Your task to perform on an android device: Go to eBay Image 0: 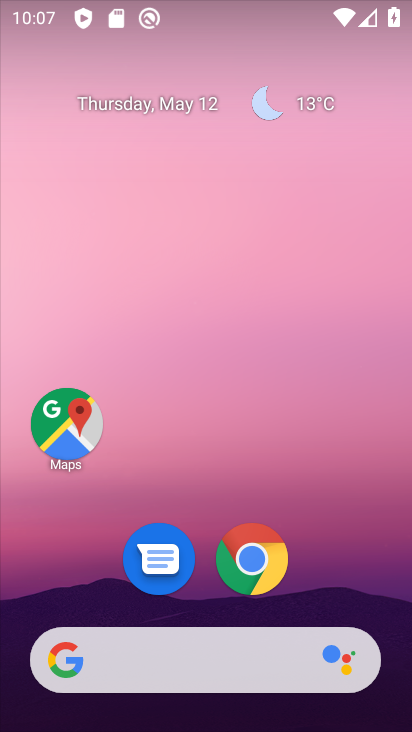
Step 0: click (234, 536)
Your task to perform on an android device: Go to eBay Image 1: 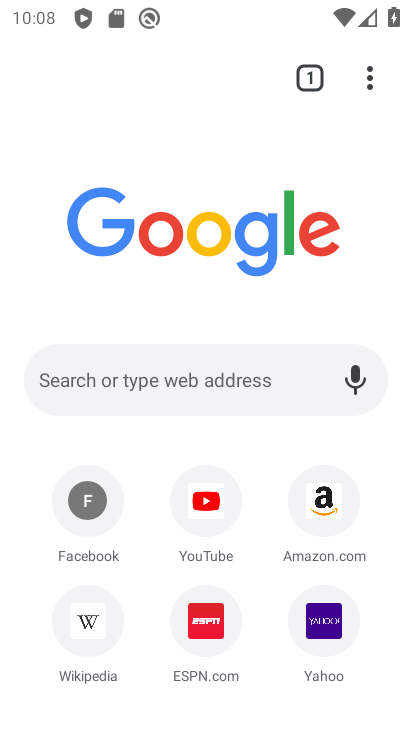
Step 1: click (214, 394)
Your task to perform on an android device: Go to eBay Image 2: 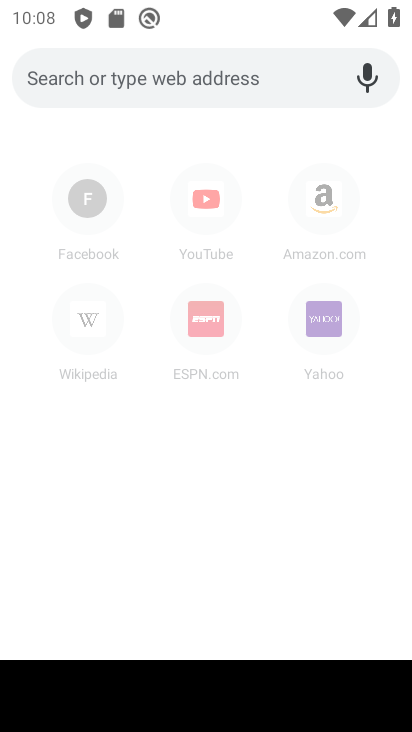
Step 2: type "eBay"
Your task to perform on an android device: Go to eBay Image 3: 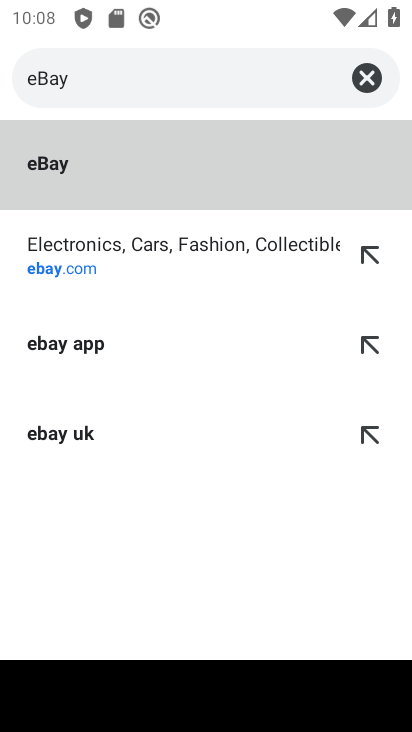
Step 3: click (115, 163)
Your task to perform on an android device: Go to eBay Image 4: 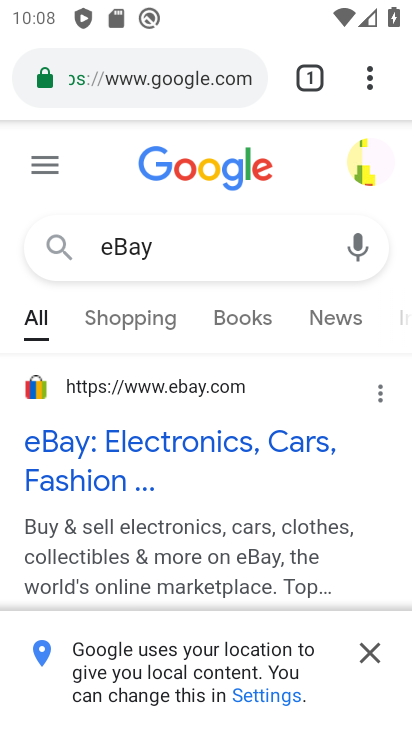
Step 4: task complete